Your task to perform on an android device: turn off location Image 0: 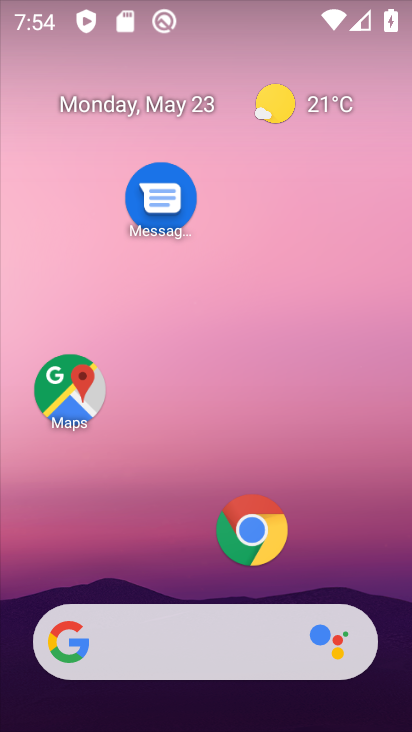
Step 0: drag from (203, 585) to (224, 129)
Your task to perform on an android device: turn off location Image 1: 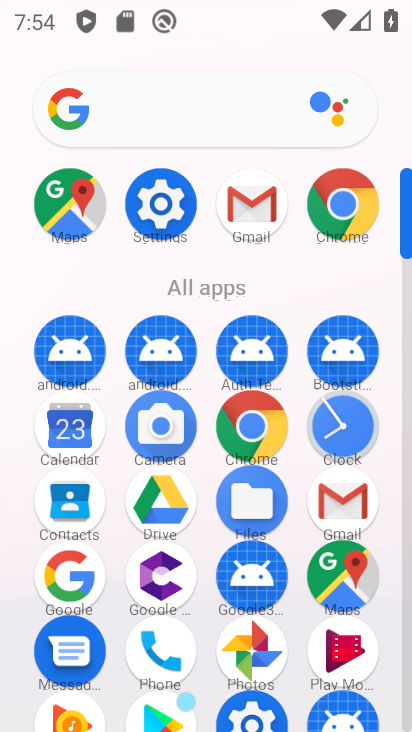
Step 1: click (161, 223)
Your task to perform on an android device: turn off location Image 2: 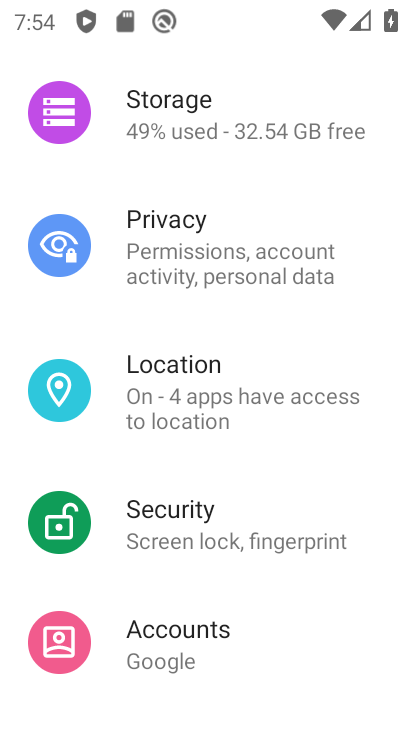
Step 2: click (204, 403)
Your task to perform on an android device: turn off location Image 3: 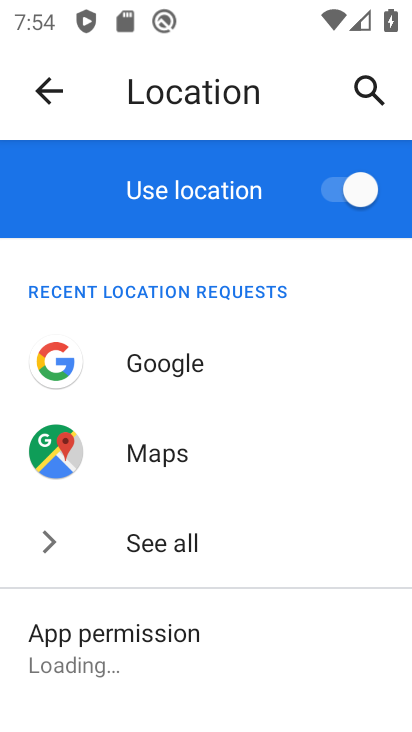
Step 3: click (352, 202)
Your task to perform on an android device: turn off location Image 4: 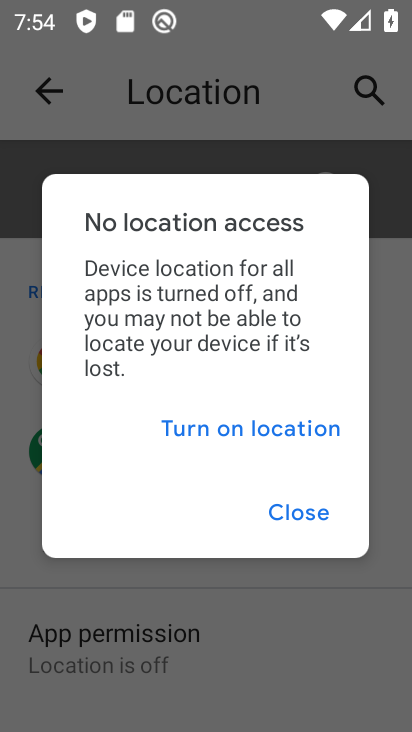
Step 4: task complete